Your task to perform on an android device: Open Google Chrome and open the bookmarks view Image 0: 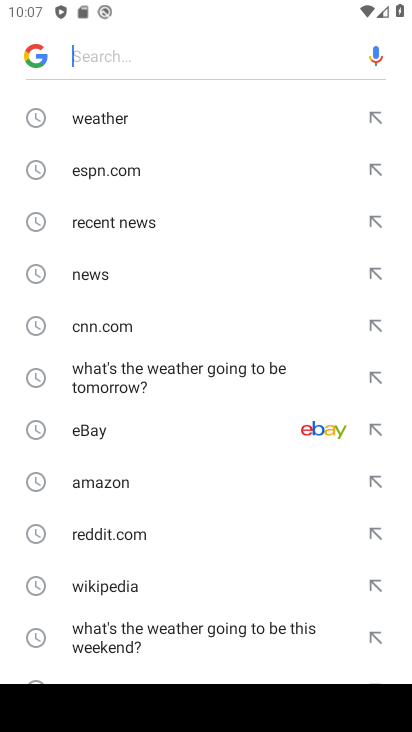
Step 0: press home button
Your task to perform on an android device: Open Google Chrome and open the bookmarks view Image 1: 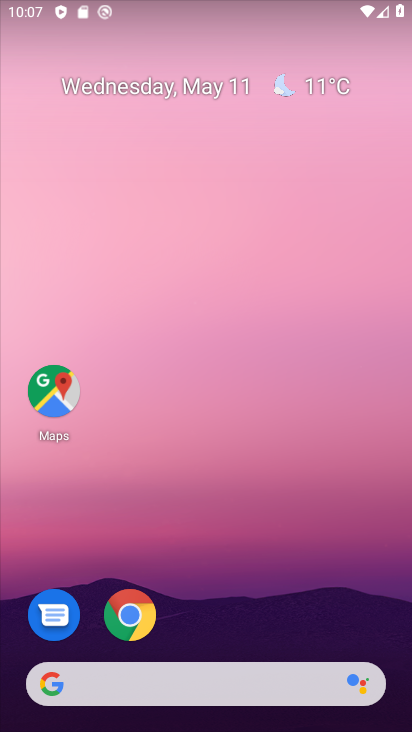
Step 1: drag from (253, 523) to (291, 126)
Your task to perform on an android device: Open Google Chrome and open the bookmarks view Image 2: 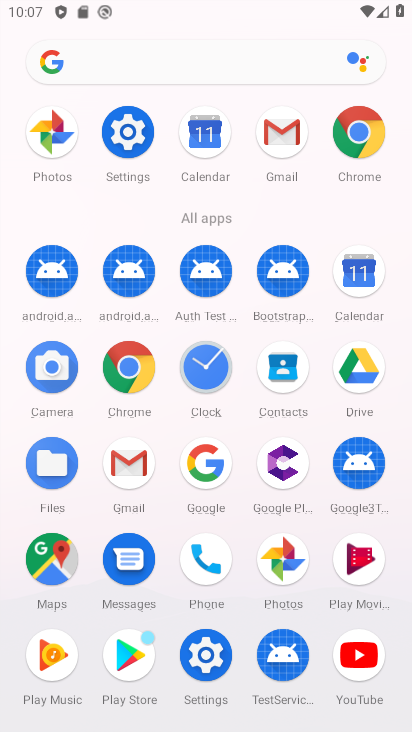
Step 2: click (363, 131)
Your task to perform on an android device: Open Google Chrome and open the bookmarks view Image 3: 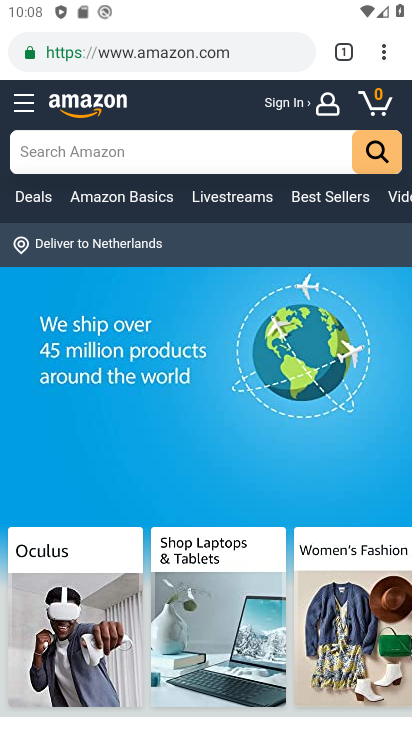
Step 3: task complete